Your task to perform on an android device: Do I have any events today? Image 0: 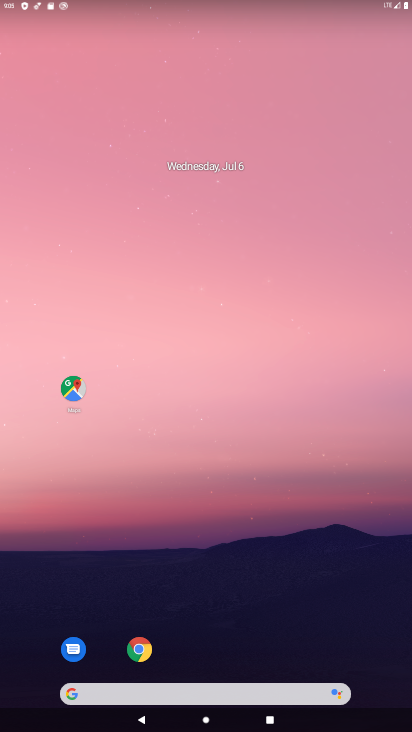
Step 0: drag from (220, 665) to (224, 52)
Your task to perform on an android device: Do I have any events today? Image 1: 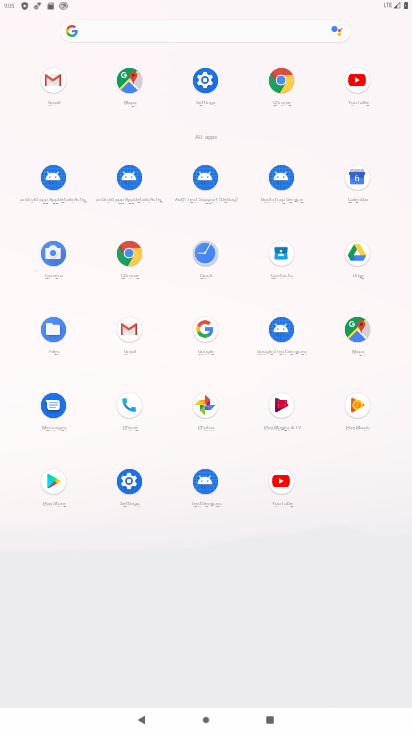
Step 1: click (357, 183)
Your task to perform on an android device: Do I have any events today? Image 2: 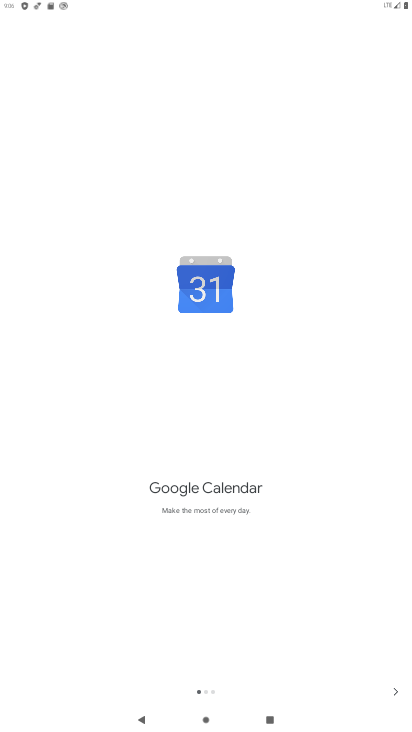
Step 2: click (396, 690)
Your task to perform on an android device: Do I have any events today? Image 3: 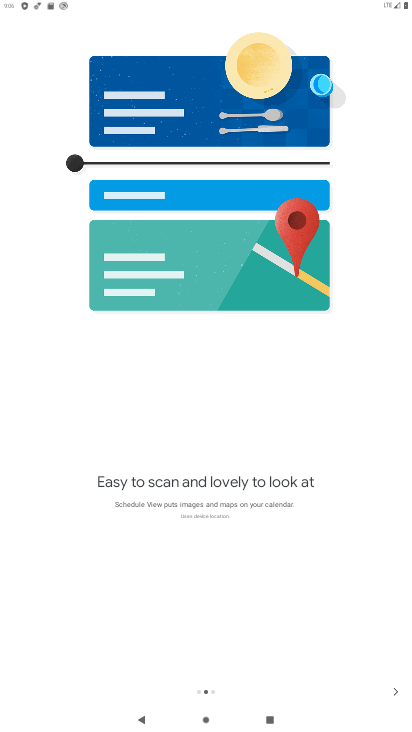
Step 3: click (396, 690)
Your task to perform on an android device: Do I have any events today? Image 4: 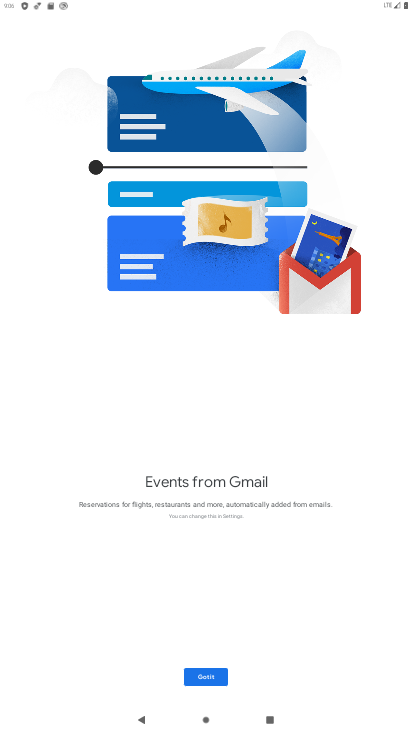
Step 4: click (206, 675)
Your task to perform on an android device: Do I have any events today? Image 5: 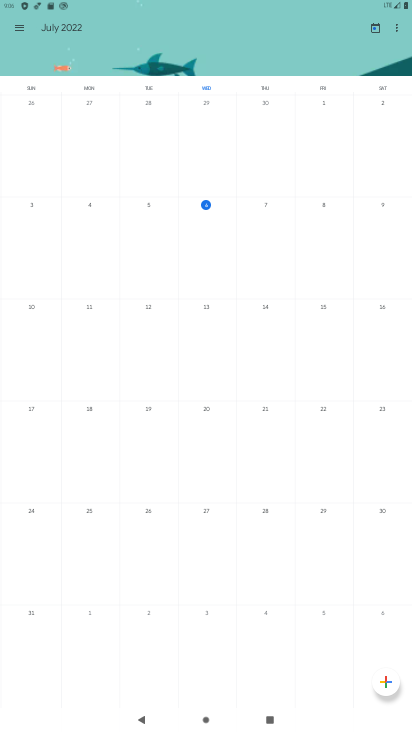
Step 5: click (206, 676)
Your task to perform on an android device: Do I have any events today? Image 6: 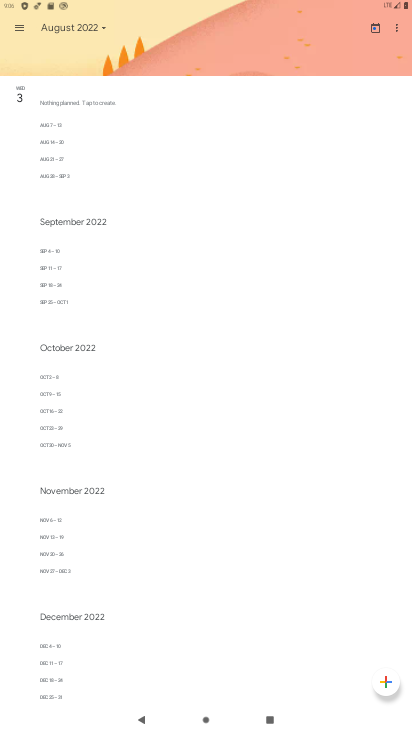
Step 6: click (206, 676)
Your task to perform on an android device: Do I have any events today? Image 7: 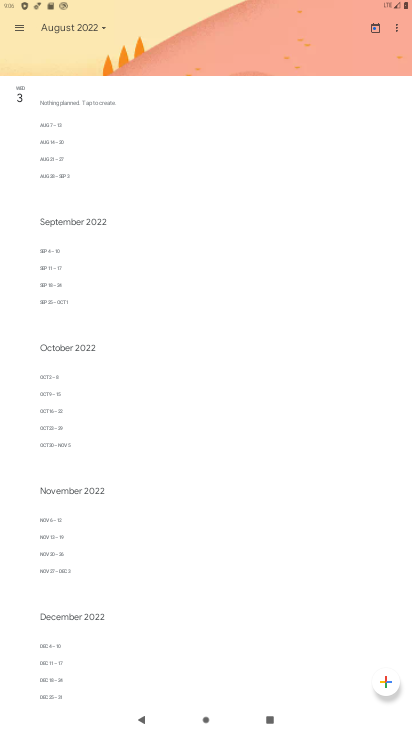
Step 7: click (206, 676)
Your task to perform on an android device: Do I have any events today? Image 8: 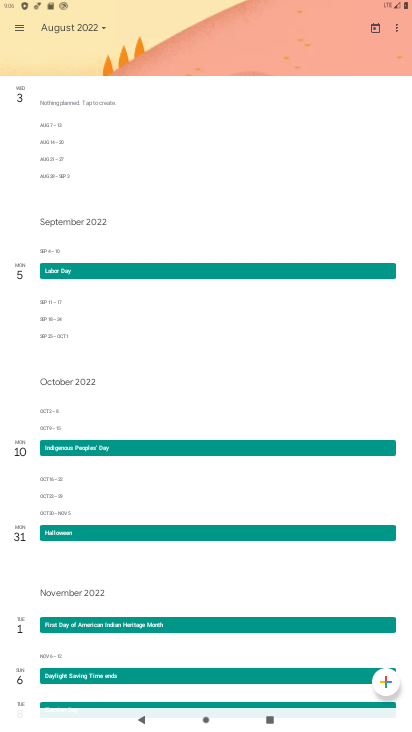
Step 8: click (20, 22)
Your task to perform on an android device: Do I have any events today? Image 9: 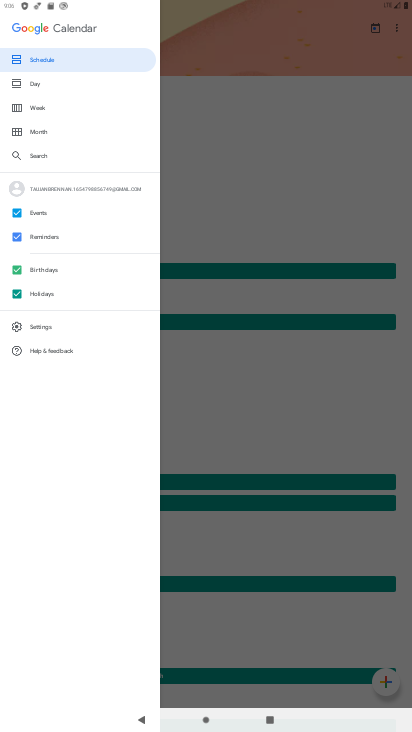
Step 9: click (39, 107)
Your task to perform on an android device: Do I have any events today? Image 10: 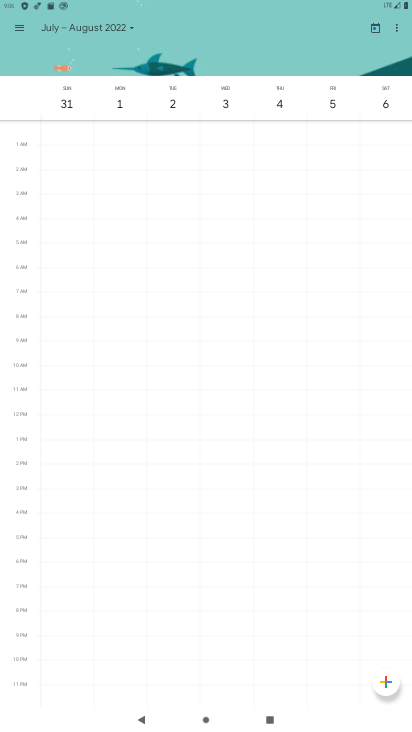
Step 10: drag from (71, 101) to (319, 39)
Your task to perform on an android device: Do I have any events today? Image 11: 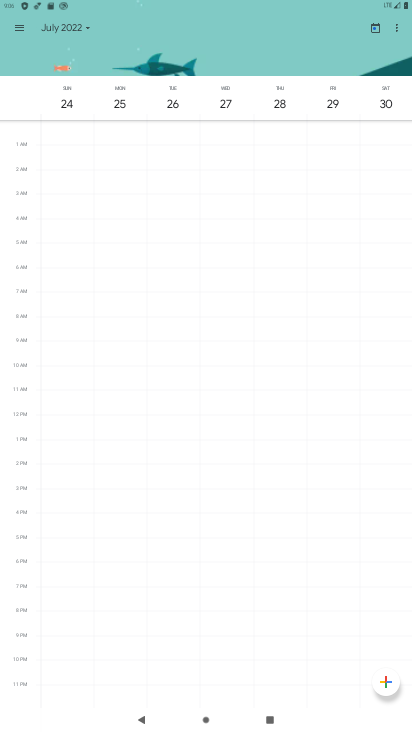
Step 11: drag from (78, 98) to (400, 81)
Your task to perform on an android device: Do I have any events today? Image 12: 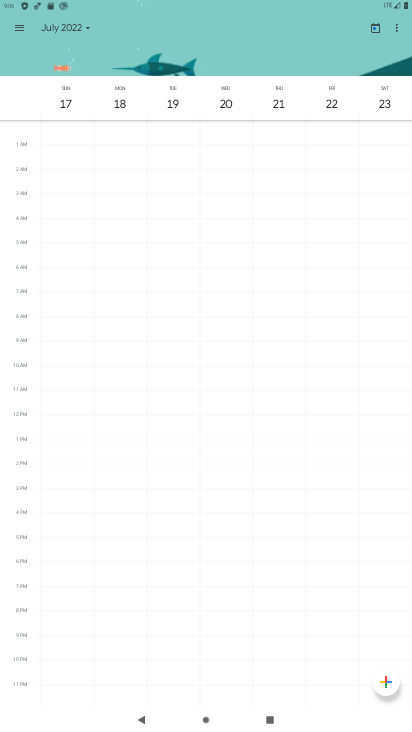
Step 12: drag from (65, 90) to (388, 72)
Your task to perform on an android device: Do I have any events today? Image 13: 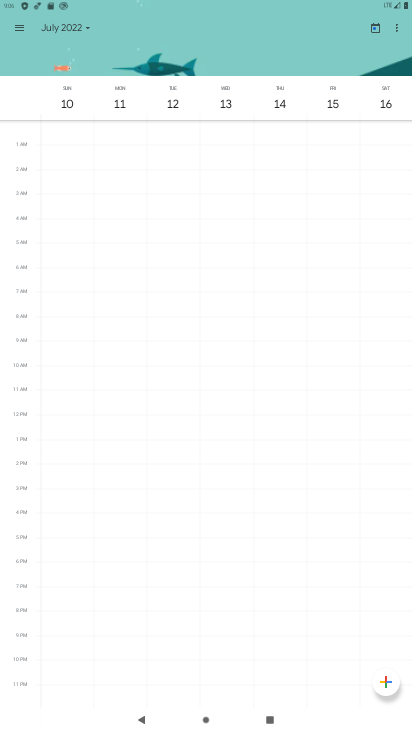
Step 13: drag from (58, 110) to (411, 123)
Your task to perform on an android device: Do I have any events today? Image 14: 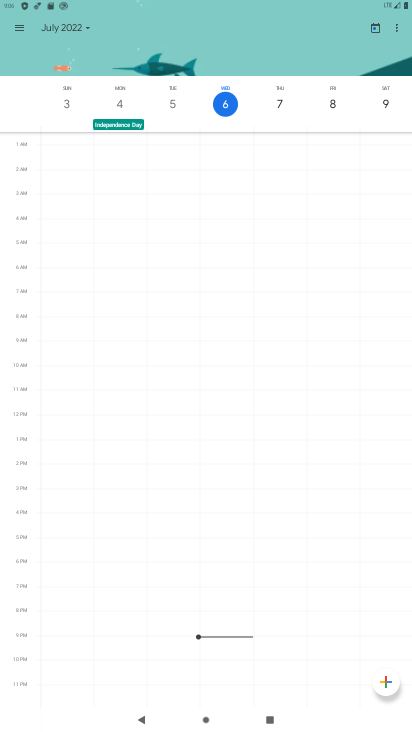
Step 14: click (225, 106)
Your task to perform on an android device: Do I have any events today? Image 15: 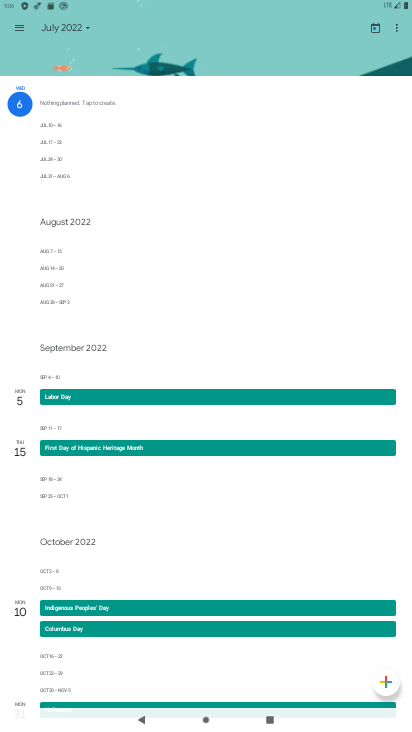
Step 15: task complete